Your task to perform on an android device: manage bookmarks in the chrome app Image 0: 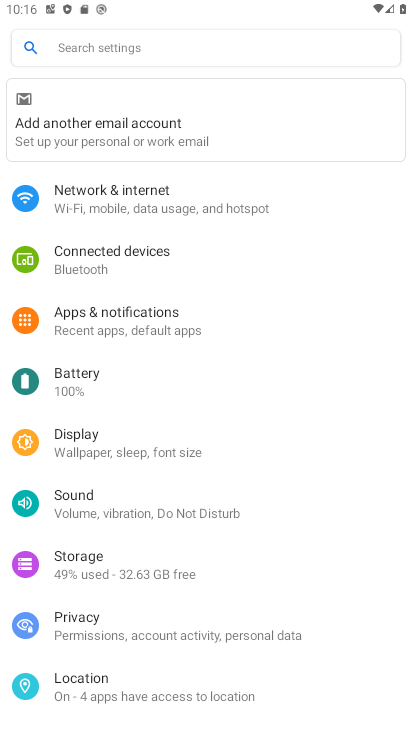
Step 0: press home button
Your task to perform on an android device: manage bookmarks in the chrome app Image 1: 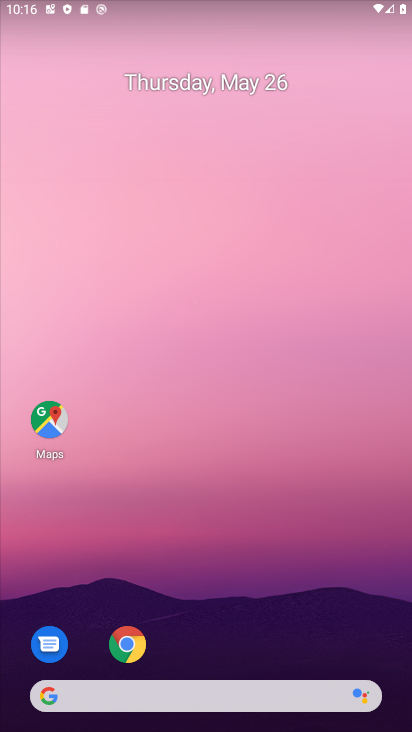
Step 1: drag from (365, 635) to (286, 30)
Your task to perform on an android device: manage bookmarks in the chrome app Image 2: 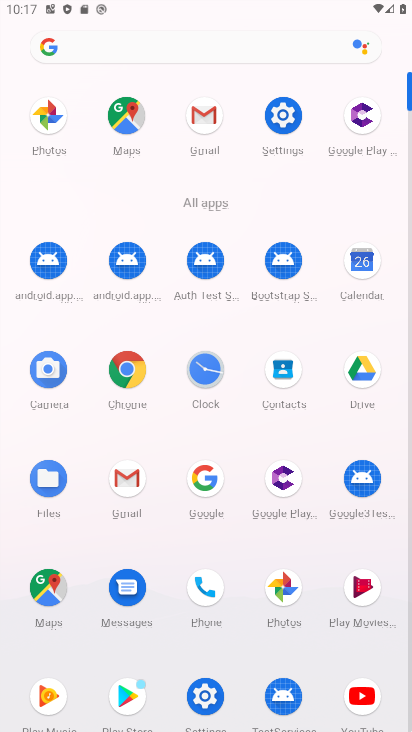
Step 2: drag from (193, 645) to (197, 170)
Your task to perform on an android device: manage bookmarks in the chrome app Image 3: 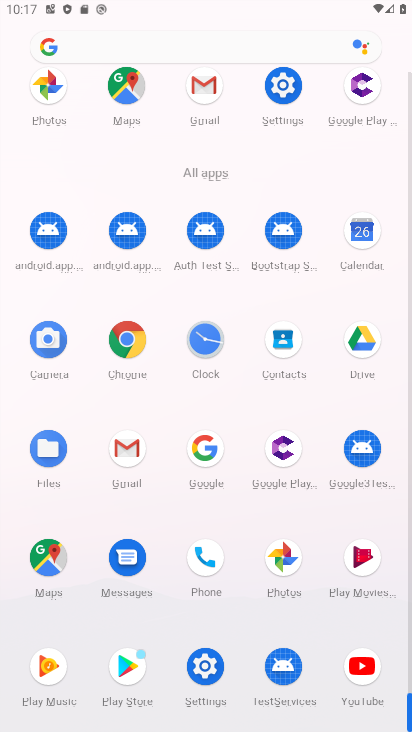
Step 3: click (128, 343)
Your task to perform on an android device: manage bookmarks in the chrome app Image 4: 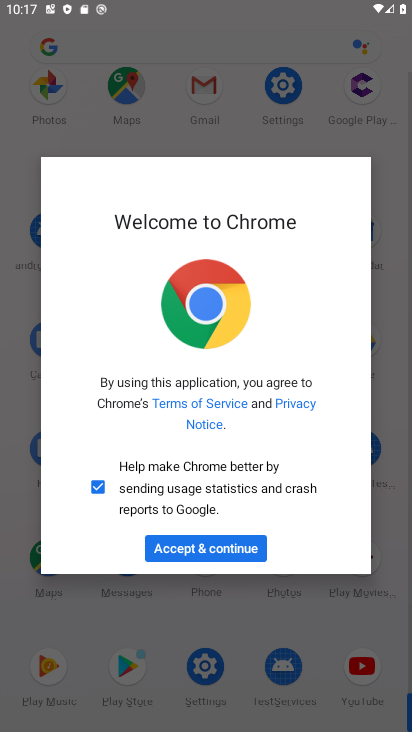
Step 4: click (165, 551)
Your task to perform on an android device: manage bookmarks in the chrome app Image 5: 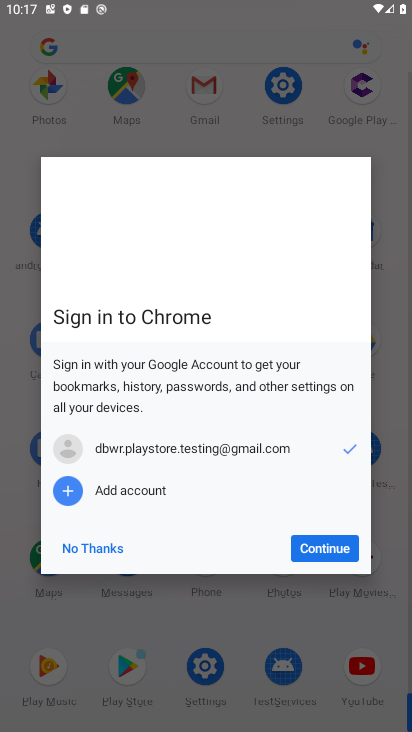
Step 5: click (343, 560)
Your task to perform on an android device: manage bookmarks in the chrome app Image 6: 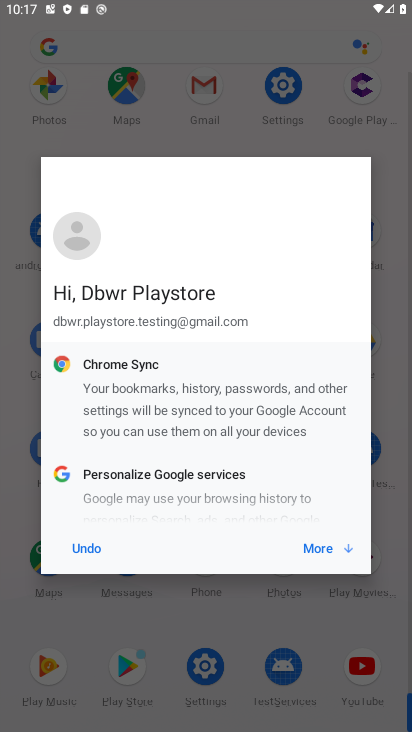
Step 6: click (343, 560)
Your task to perform on an android device: manage bookmarks in the chrome app Image 7: 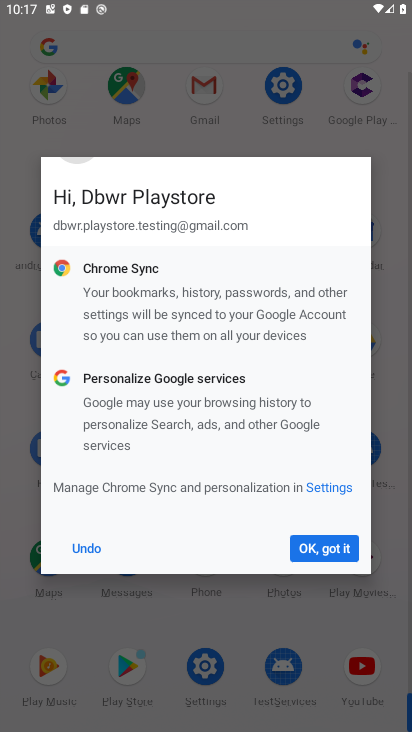
Step 7: click (343, 560)
Your task to perform on an android device: manage bookmarks in the chrome app Image 8: 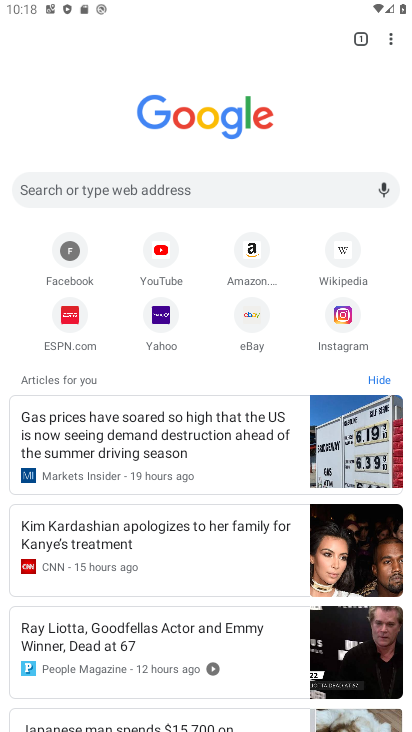
Step 8: task complete